Your task to perform on an android device: find snoozed emails in the gmail app Image 0: 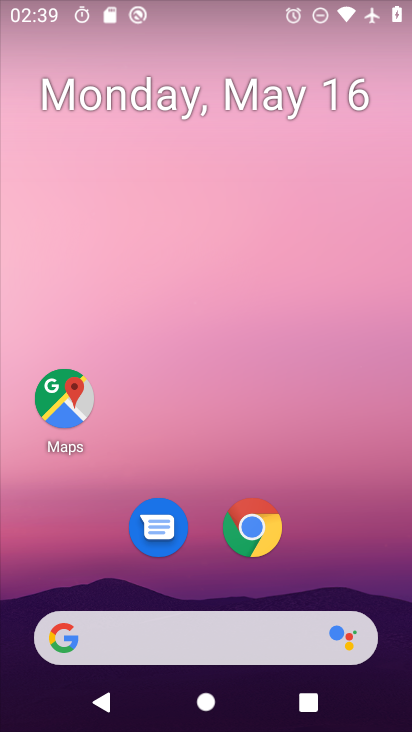
Step 0: press home button
Your task to perform on an android device: find snoozed emails in the gmail app Image 1: 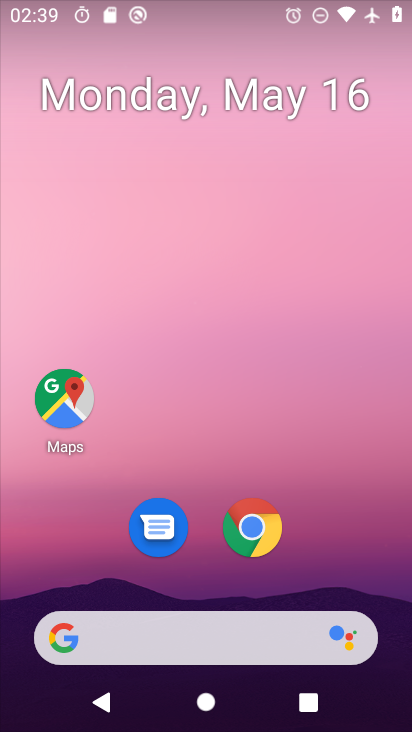
Step 1: drag from (167, 593) to (304, 170)
Your task to perform on an android device: find snoozed emails in the gmail app Image 2: 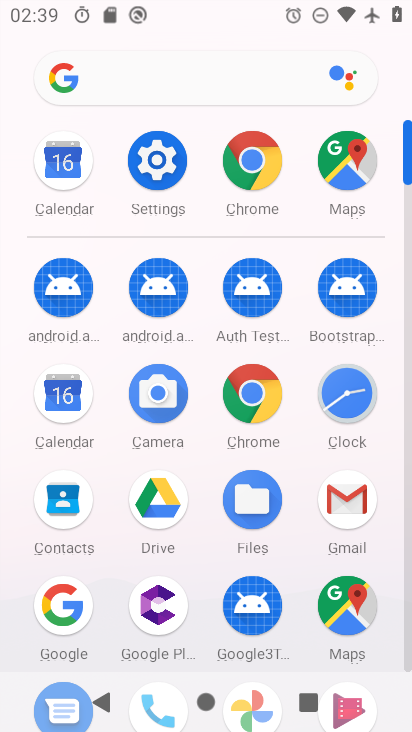
Step 2: click (346, 518)
Your task to perform on an android device: find snoozed emails in the gmail app Image 3: 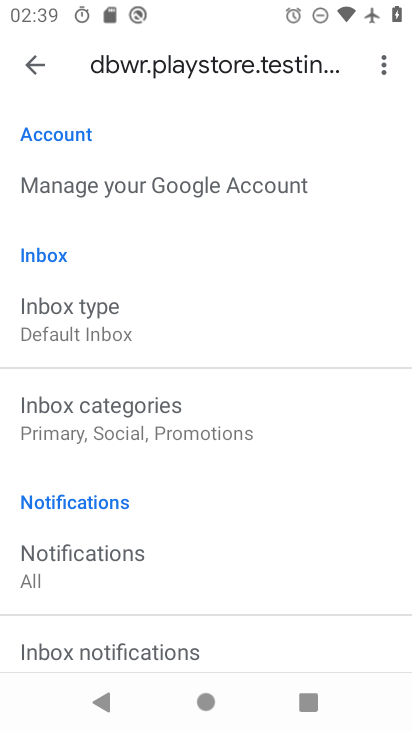
Step 3: click (39, 71)
Your task to perform on an android device: find snoozed emails in the gmail app Image 4: 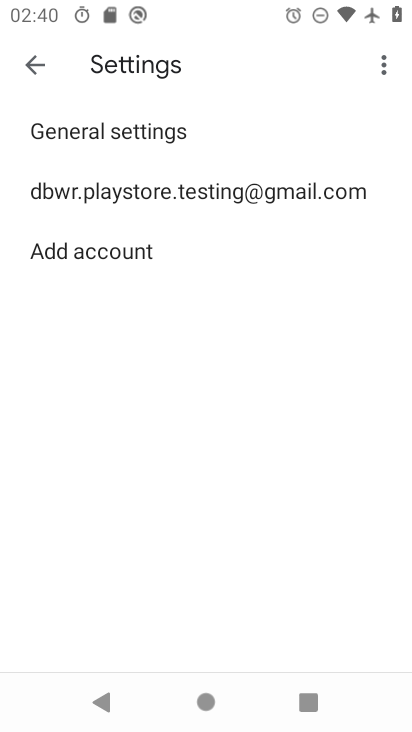
Step 4: click (39, 71)
Your task to perform on an android device: find snoozed emails in the gmail app Image 5: 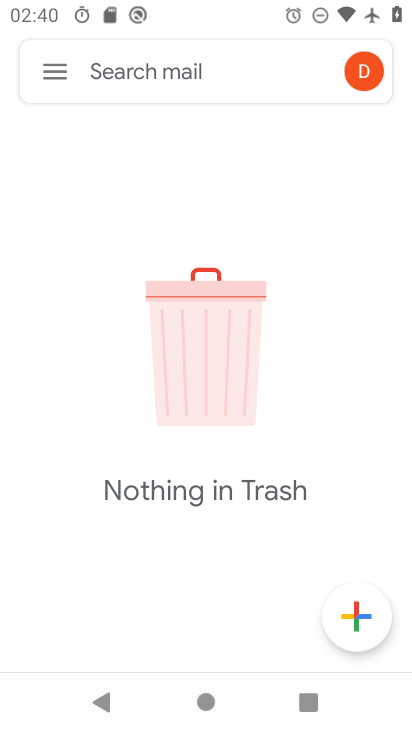
Step 5: click (50, 74)
Your task to perform on an android device: find snoozed emails in the gmail app Image 6: 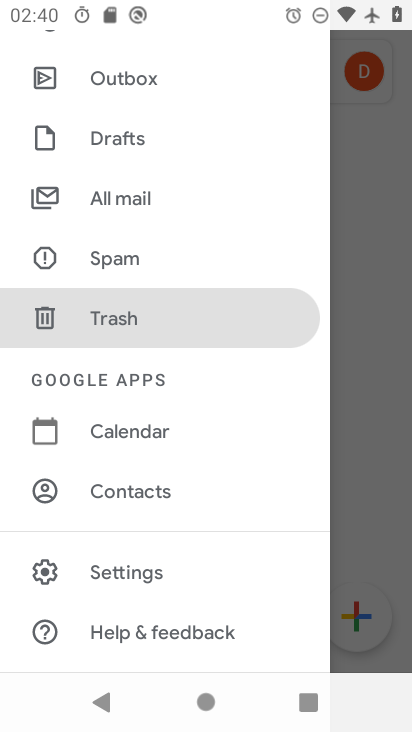
Step 6: drag from (223, 126) to (199, 502)
Your task to perform on an android device: find snoozed emails in the gmail app Image 7: 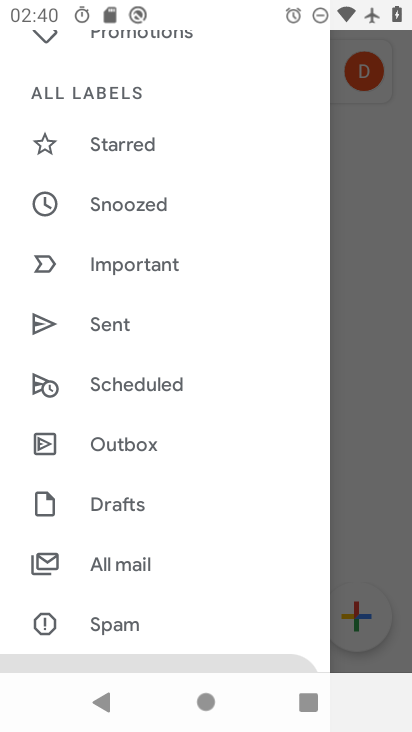
Step 7: click (144, 194)
Your task to perform on an android device: find snoozed emails in the gmail app Image 8: 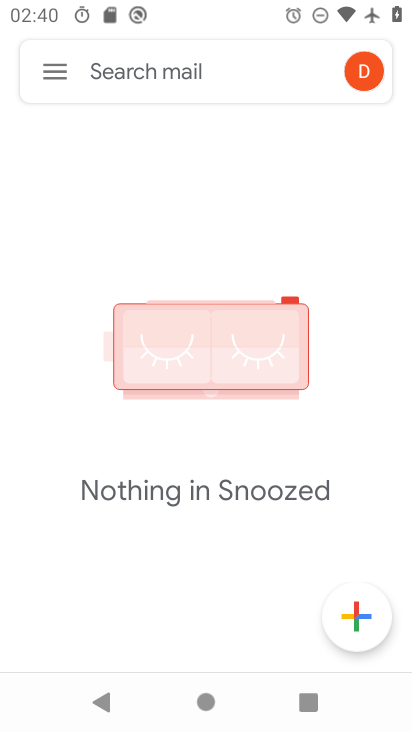
Step 8: task complete